Your task to perform on an android device: see tabs open on other devices in the chrome app Image 0: 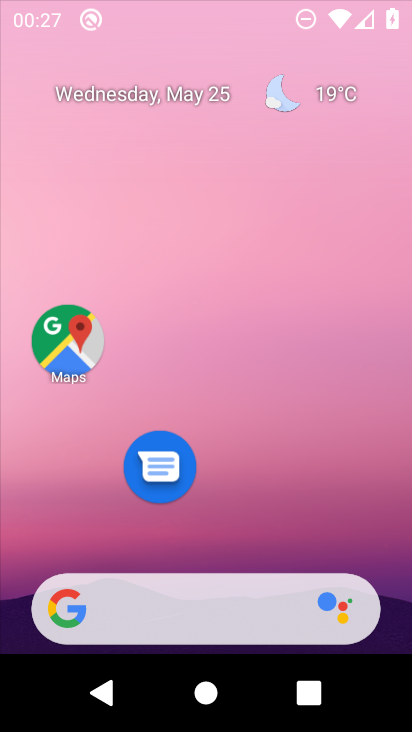
Step 0: drag from (269, 404) to (373, 1)
Your task to perform on an android device: see tabs open on other devices in the chrome app Image 1: 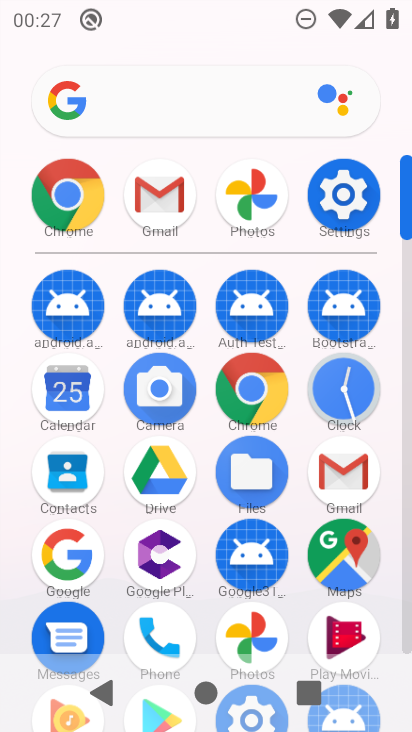
Step 1: click (254, 392)
Your task to perform on an android device: see tabs open on other devices in the chrome app Image 2: 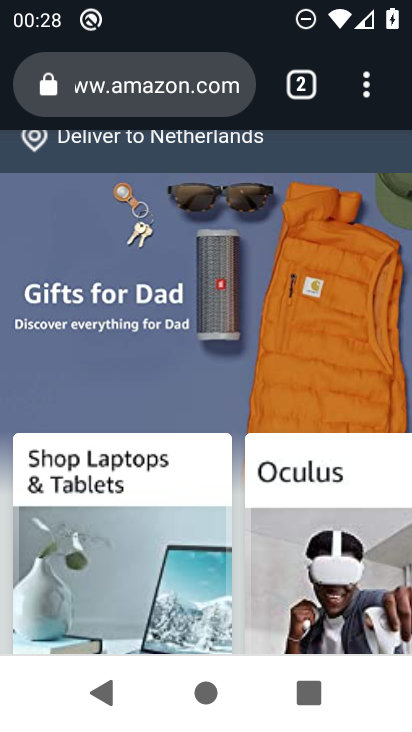
Step 2: click (367, 84)
Your task to perform on an android device: see tabs open on other devices in the chrome app Image 3: 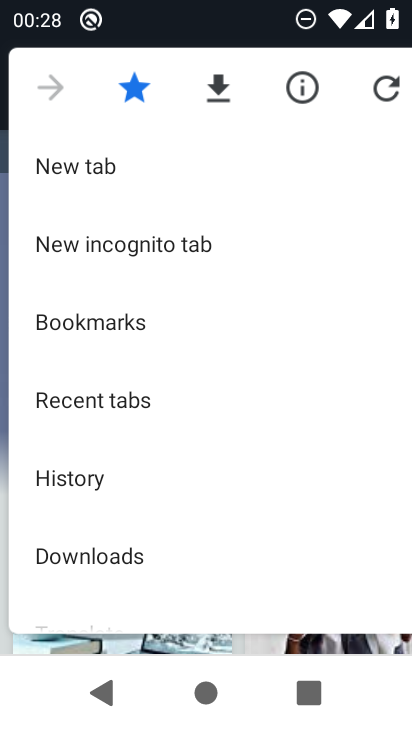
Step 3: drag from (148, 494) to (261, 130)
Your task to perform on an android device: see tabs open on other devices in the chrome app Image 4: 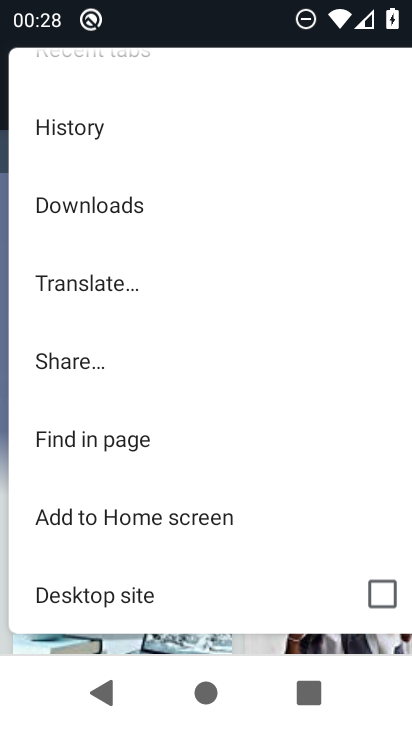
Step 4: drag from (157, 532) to (282, 158)
Your task to perform on an android device: see tabs open on other devices in the chrome app Image 5: 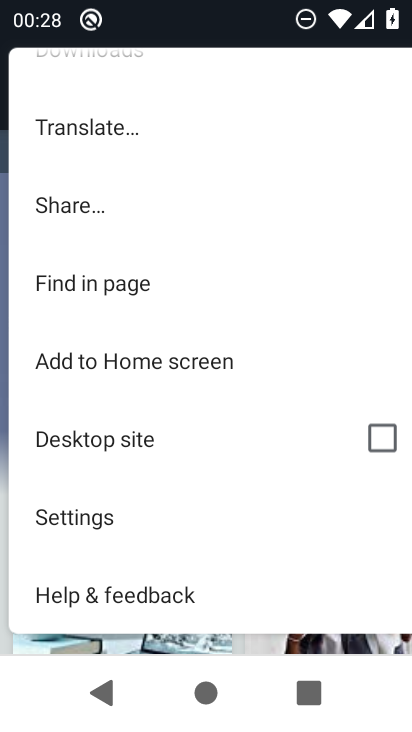
Step 5: drag from (166, 272) to (219, 680)
Your task to perform on an android device: see tabs open on other devices in the chrome app Image 6: 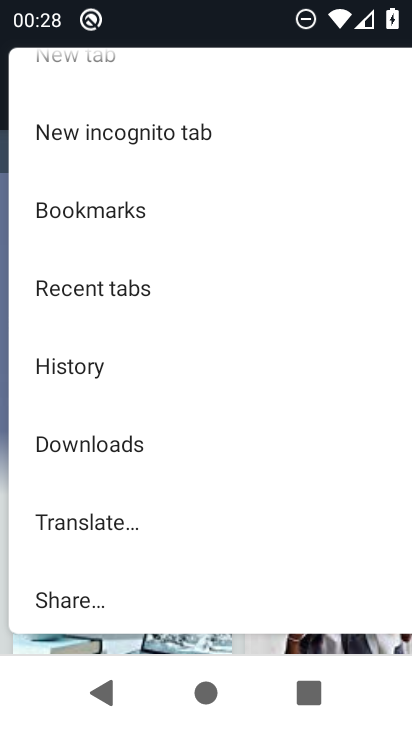
Step 6: drag from (206, 142) to (292, 524)
Your task to perform on an android device: see tabs open on other devices in the chrome app Image 7: 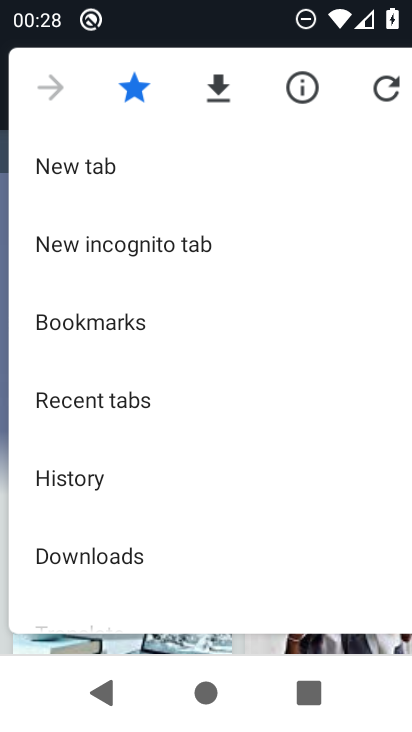
Step 7: click (125, 384)
Your task to perform on an android device: see tabs open on other devices in the chrome app Image 8: 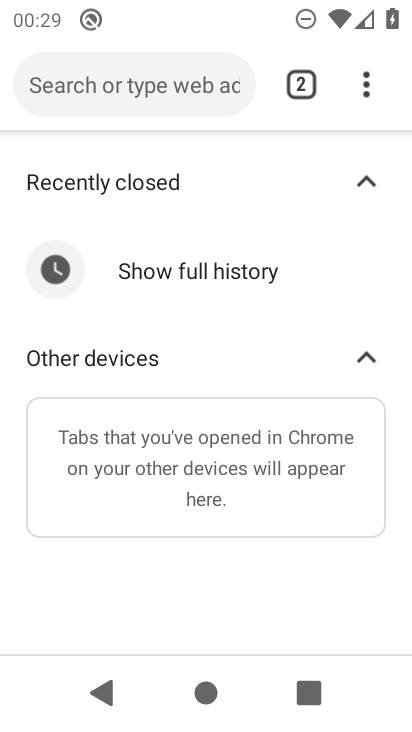
Step 8: task complete